Your task to perform on an android device: Go to Maps Image 0: 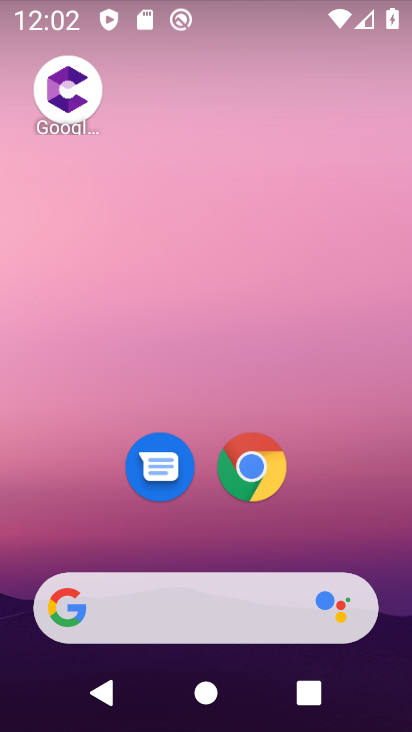
Step 0: drag from (355, 514) to (324, 25)
Your task to perform on an android device: Go to Maps Image 1: 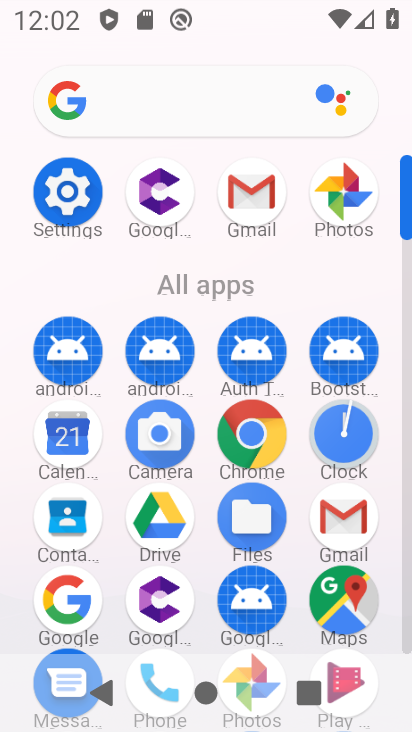
Step 1: click (338, 595)
Your task to perform on an android device: Go to Maps Image 2: 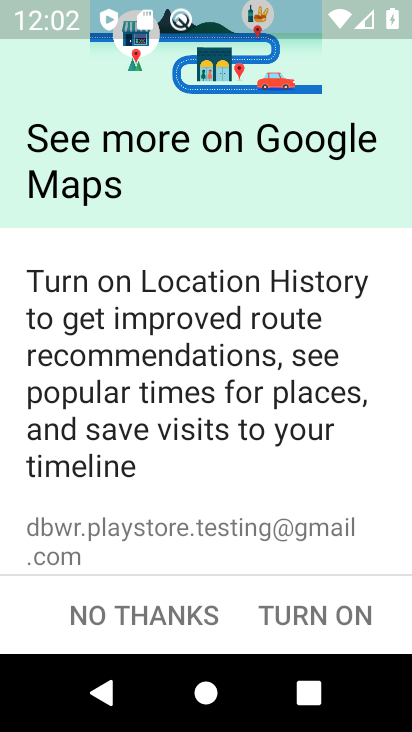
Step 2: click (187, 603)
Your task to perform on an android device: Go to Maps Image 3: 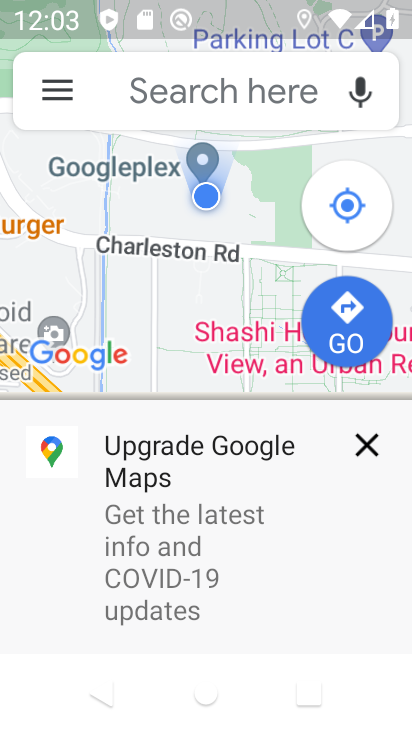
Step 3: click (371, 436)
Your task to perform on an android device: Go to Maps Image 4: 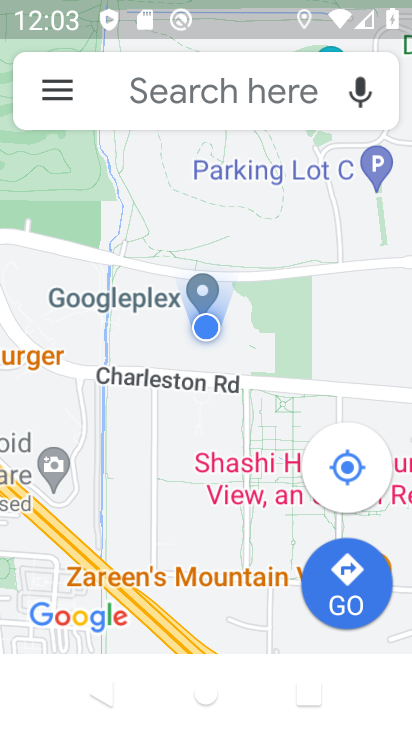
Step 4: task complete